Your task to perform on an android device: Search for the best selling TV on Best Buy. Image 0: 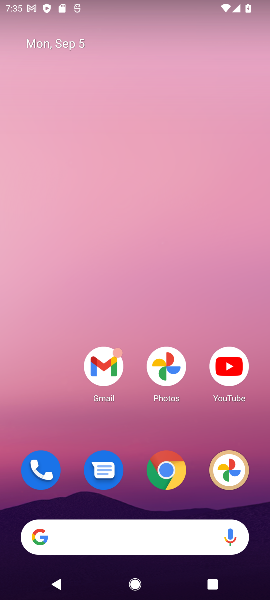
Step 0: drag from (128, 186) to (130, 92)
Your task to perform on an android device: Search for the best selling TV on Best Buy. Image 1: 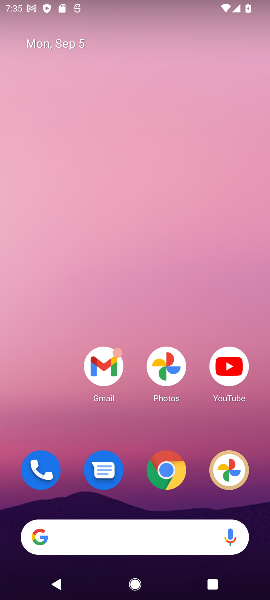
Step 1: drag from (127, 140) to (134, 46)
Your task to perform on an android device: Search for the best selling TV on Best Buy. Image 2: 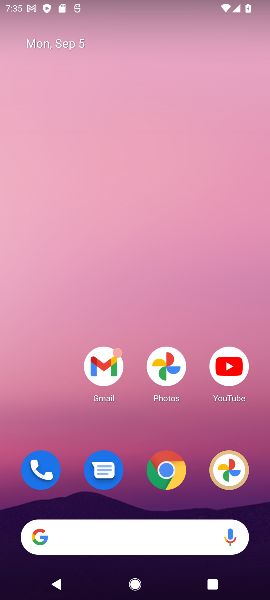
Step 2: drag from (108, 237) to (111, 72)
Your task to perform on an android device: Search for the best selling TV on Best Buy. Image 3: 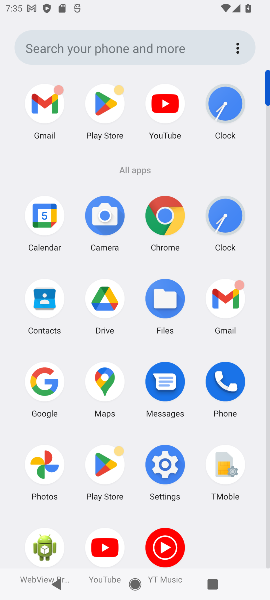
Step 3: click (175, 217)
Your task to perform on an android device: Search for the best selling TV on Best Buy. Image 4: 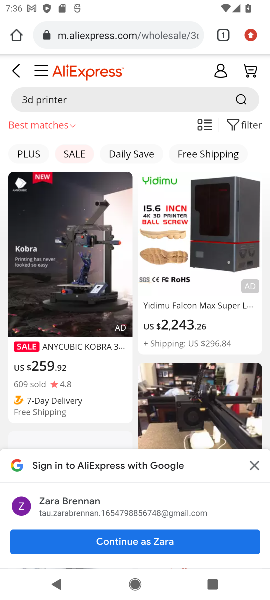
Step 4: click (139, 33)
Your task to perform on an android device: Search for the best selling TV on Best Buy. Image 5: 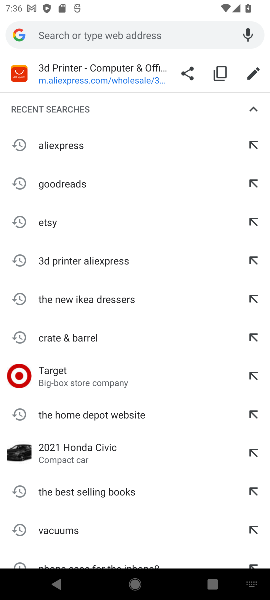
Step 5: type "Best Buy"
Your task to perform on an android device: Search for the best selling TV on Best Buy. Image 6: 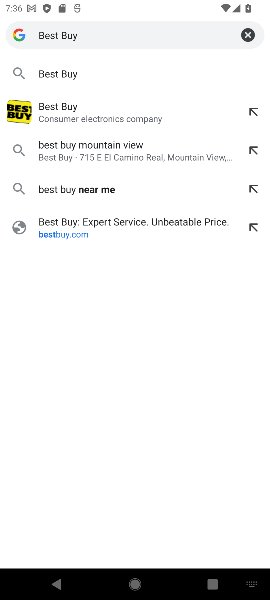
Step 6: click (51, 76)
Your task to perform on an android device: Search for the best selling TV on Best Buy. Image 7: 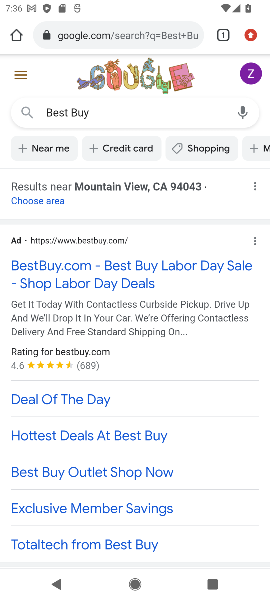
Step 7: click (56, 270)
Your task to perform on an android device: Search for the best selling TV on Best Buy. Image 8: 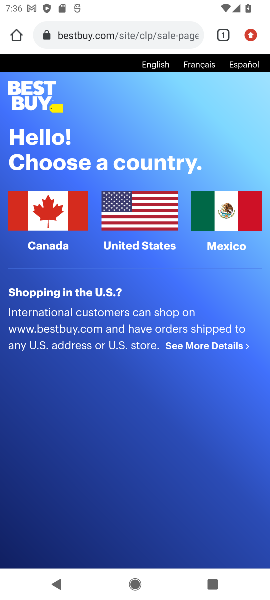
Step 8: click (118, 210)
Your task to perform on an android device: Search for the best selling TV on Best Buy. Image 9: 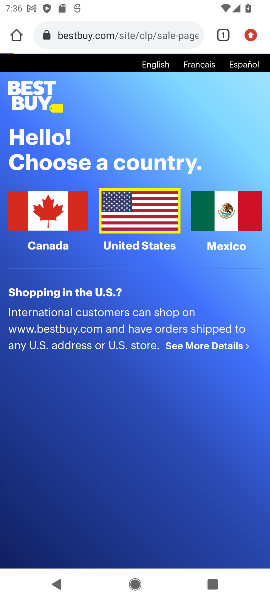
Step 9: click (116, 211)
Your task to perform on an android device: Search for the best selling TV on Best Buy. Image 10: 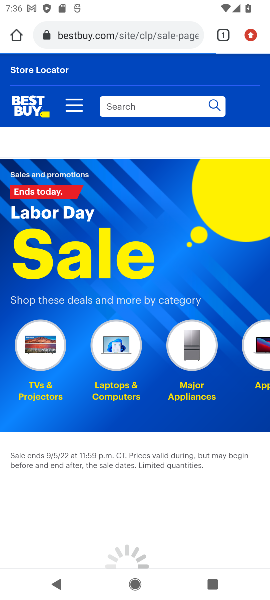
Step 10: click (121, 110)
Your task to perform on an android device: Search for the best selling TV on Best Buy. Image 11: 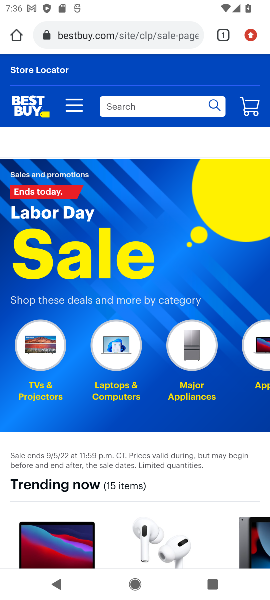
Step 11: type "the best selling"
Your task to perform on an android device: Search for the best selling TV on Best Buy. Image 12: 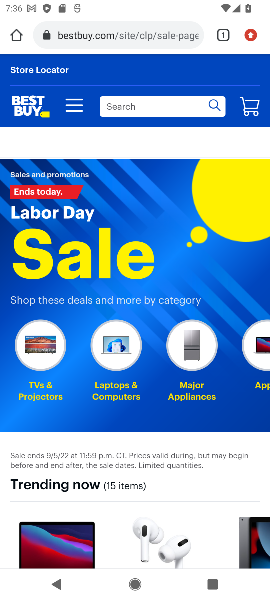
Step 12: click (181, 110)
Your task to perform on an android device: Search for the best selling TV on Best Buy. Image 13: 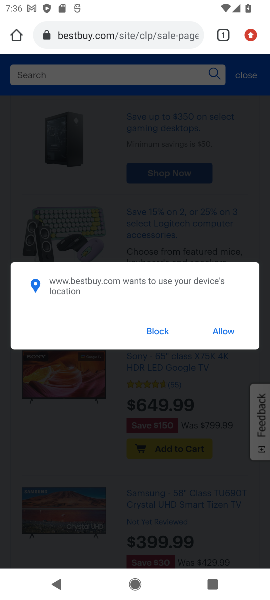
Step 13: click (227, 330)
Your task to perform on an android device: Search for the best selling TV on Best Buy. Image 14: 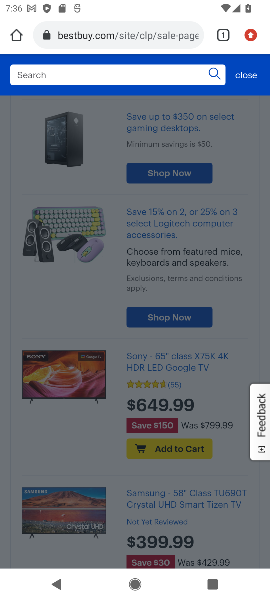
Step 14: type "the best selling"
Your task to perform on an android device: Search for the best selling TV on Best Buy. Image 15: 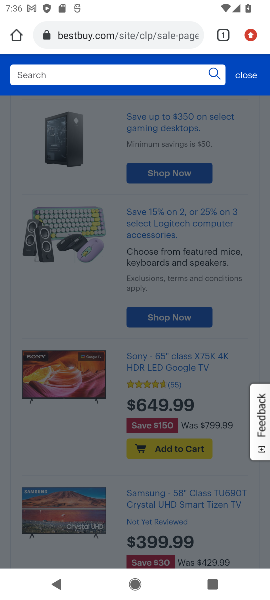
Step 15: click (61, 84)
Your task to perform on an android device: Search for the best selling TV on Best Buy. Image 16: 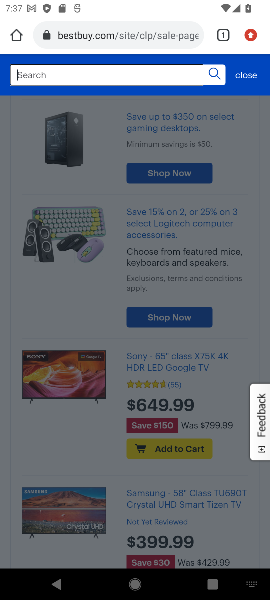
Step 16: type " the best selling"
Your task to perform on an android device: Search for the best selling TV on Best Buy. Image 17: 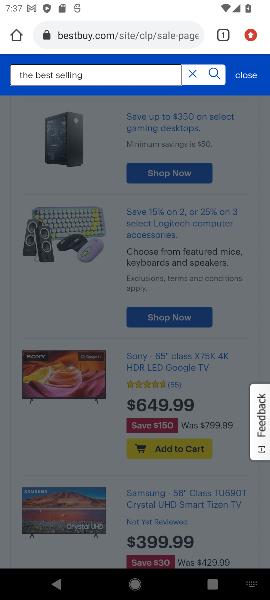
Step 17: click (210, 63)
Your task to perform on an android device: Search for the best selling TV on Best Buy. Image 18: 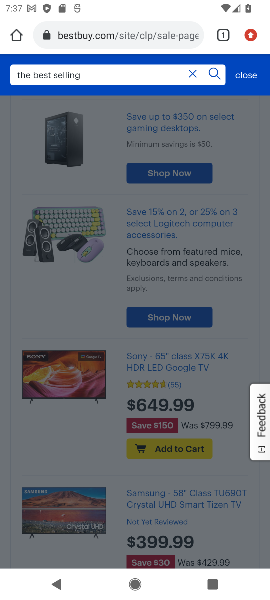
Step 18: click (213, 64)
Your task to perform on an android device: Search for the best selling TV on Best Buy. Image 19: 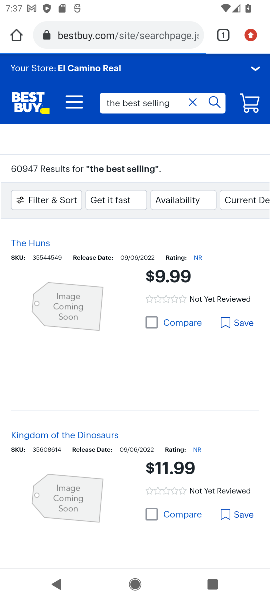
Step 19: task complete